Your task to perform on an android device: What's on my calendar today? Image 0: 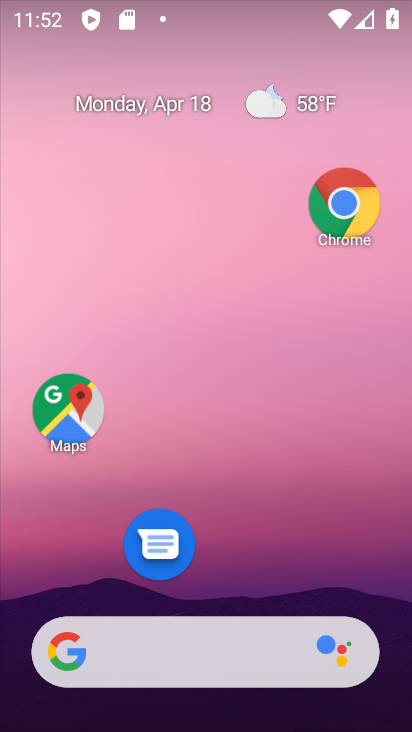
Step 0: drag from (255, 485) to (255, 106)
Your task to perform on an android device: What's on my calendar today? Image 1: 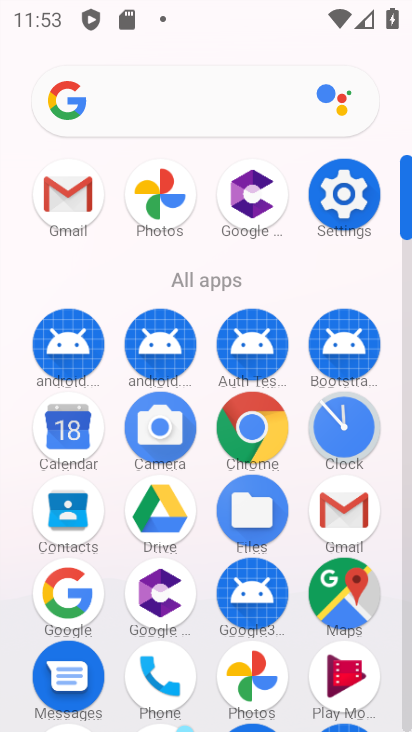
Step 1: click (55, 426)
Your task to perform on an android device: What's on my calendar today? Image 2: 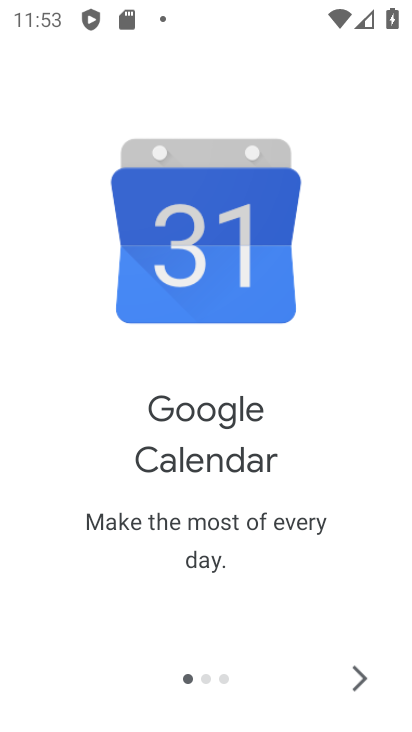
Step 2: click (364, 672)
Your task to perform on an android device: What's on my calendar today? Image 3: 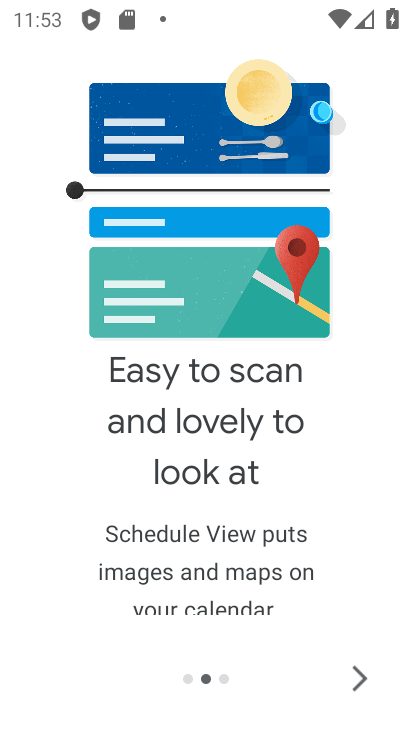
Step 3: click (362, 682)
Your task to perform on an android device: What's on my calendar today? Image 4: 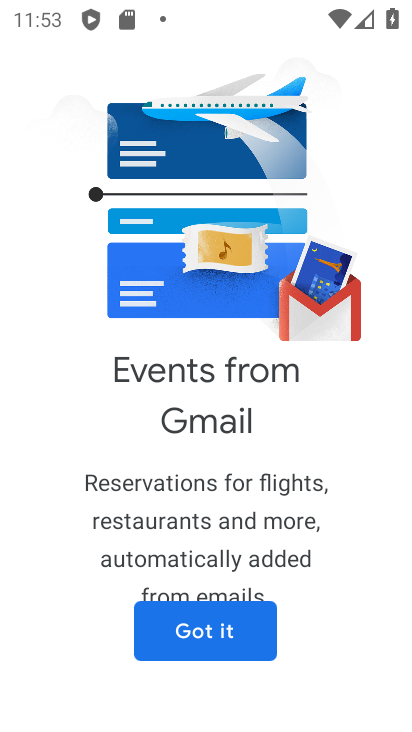
Step 4: click (231, 624)
Your task to perform on an android device: What's on my calendar today? Image 5: 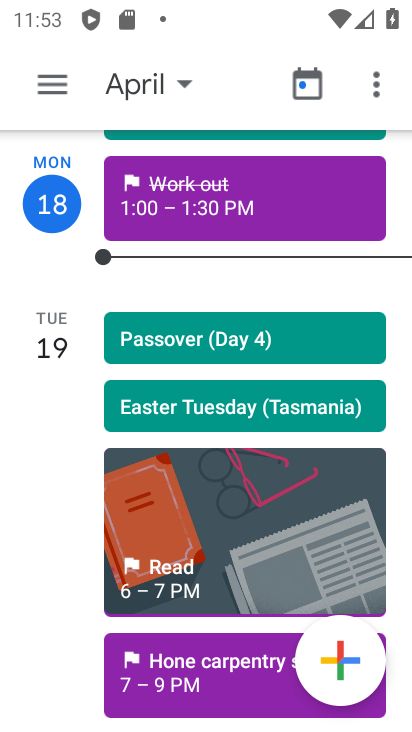
Step 5: task complete